Your task to perform on an android device: Open privacy settings Image 0: 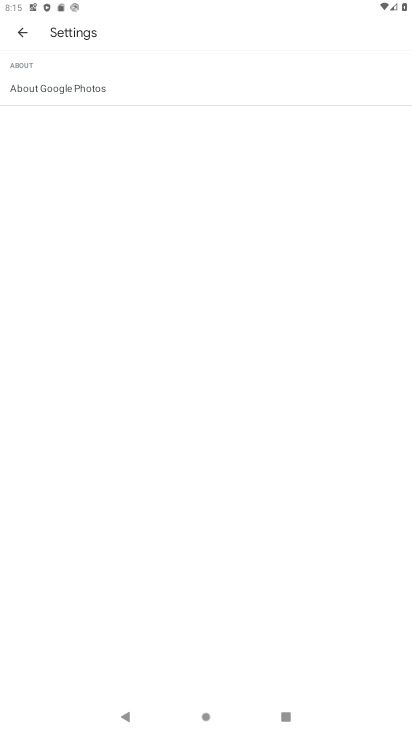
Step 0: press home button
Your task to perform on an android device: Open privacy settings Image 1: 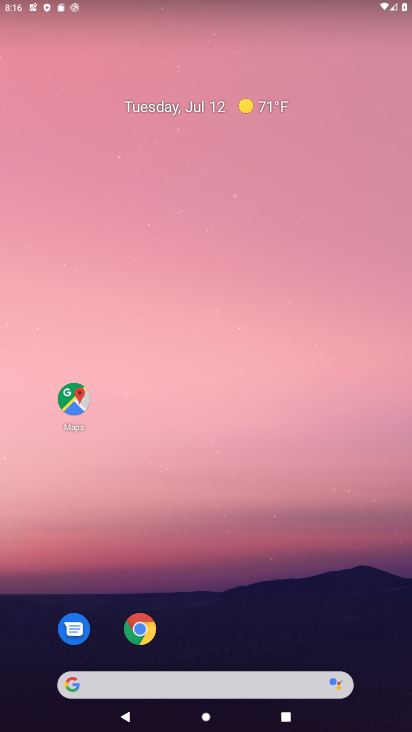
Step 1: click (136, 629)
Your task to perform on an android device: Open privacy settings Image 2: 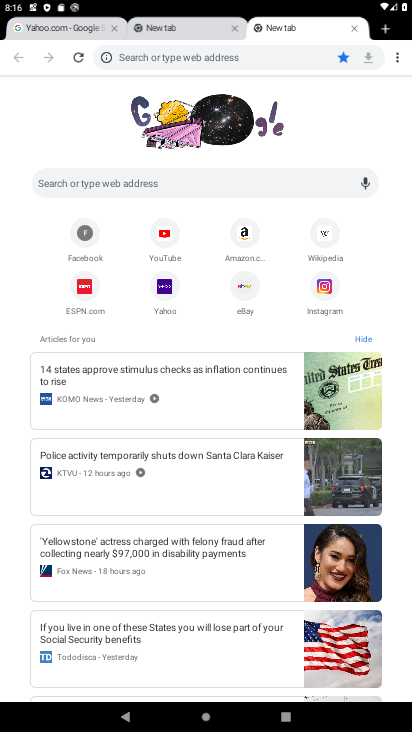
Step 2: press home button
Your task to perform on an android device: Open privacy settings Image 3: 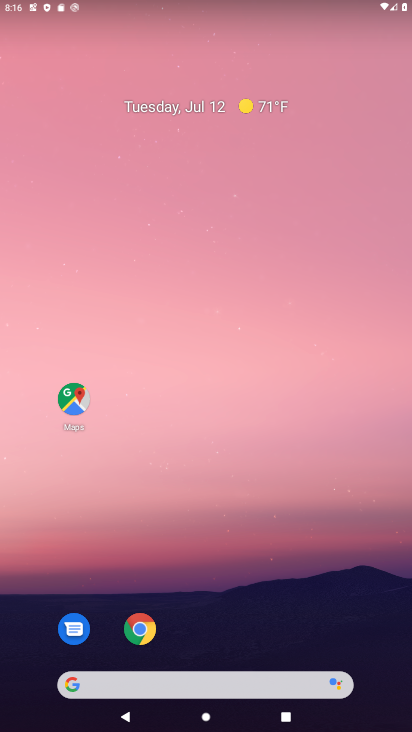
Step 3: drag from (377, 707) to (269, 58)
Your task to perform on an android device: Open privacy settings Image 4: 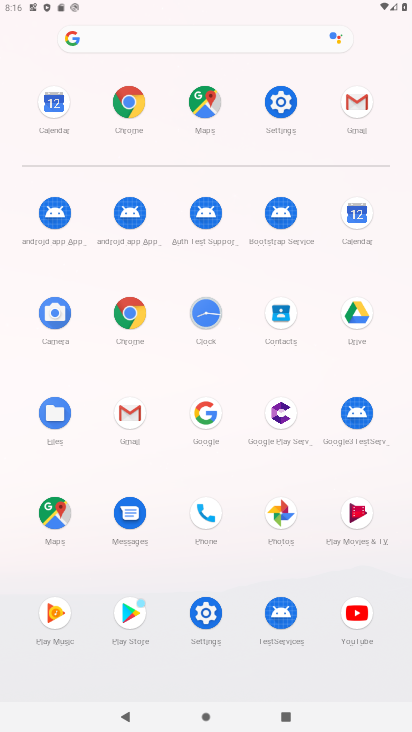
Step 4: click (283, 102)
Your task to perform on an android device: Open privacy settings Image 5: 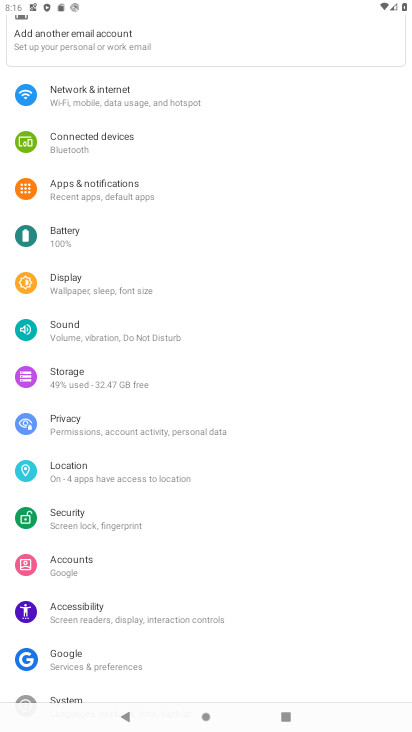
Step 5: click (77, 419)
Your task to perform on an android device: Open privacy settings Image 6: 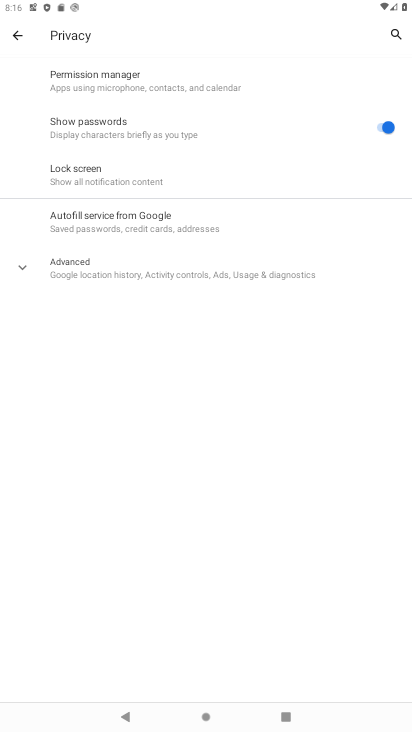
Step 6: task complete